Your task to perform on an android device: check battery use Image 0: 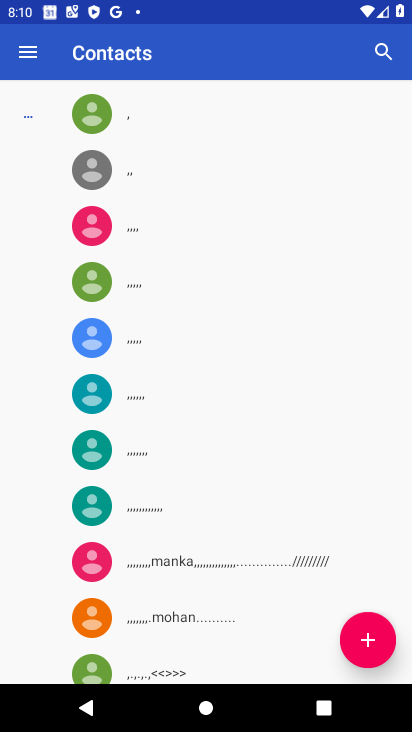
Step 0: press home button
Your task to perform on an android device: check battery use Image 1: 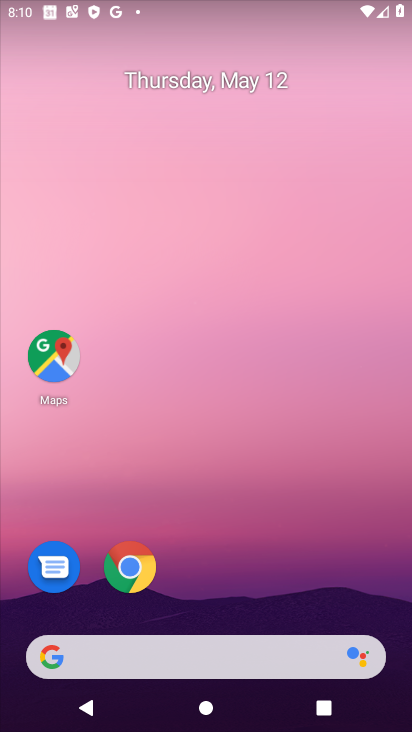
Step 1: drag from (288, 605) to (259, 121)
Your task to perform on an android device: check battery use Image 2: 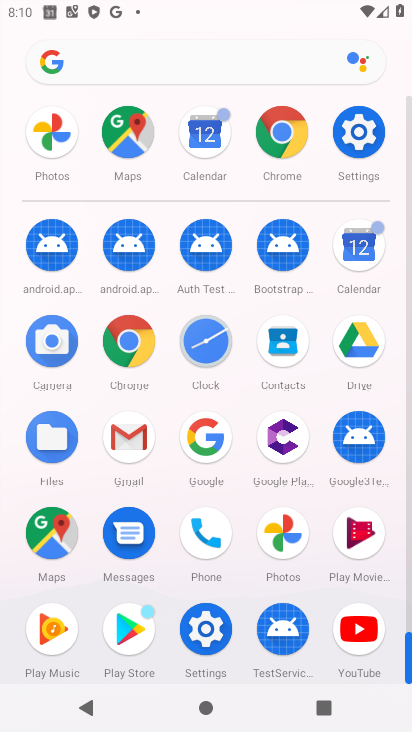
Step 2: click (377, 140)
Your task to perform on an android device: check battery use Image 3: 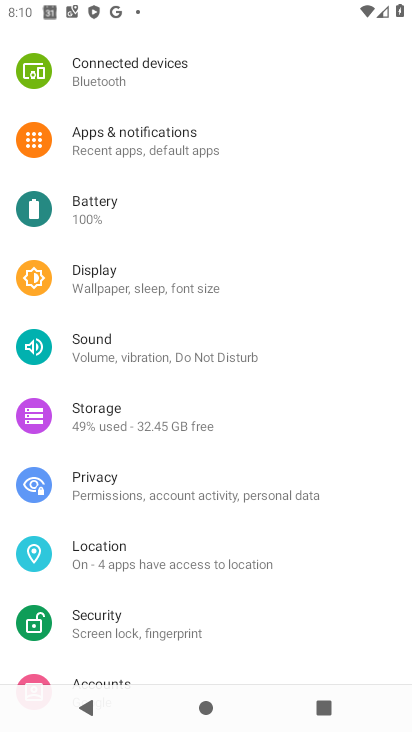
Step 3: click (163, 219)
Your task to perform on an android device: check battery use Image 4: 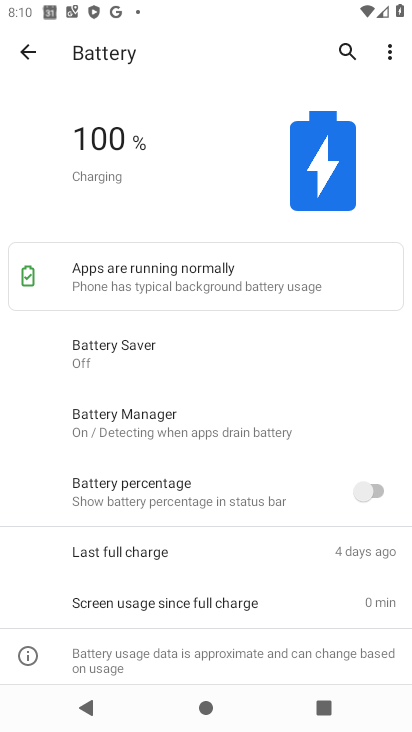
Step 4: task complete